Your task to perform on an android device: Open notification settings Image 0: 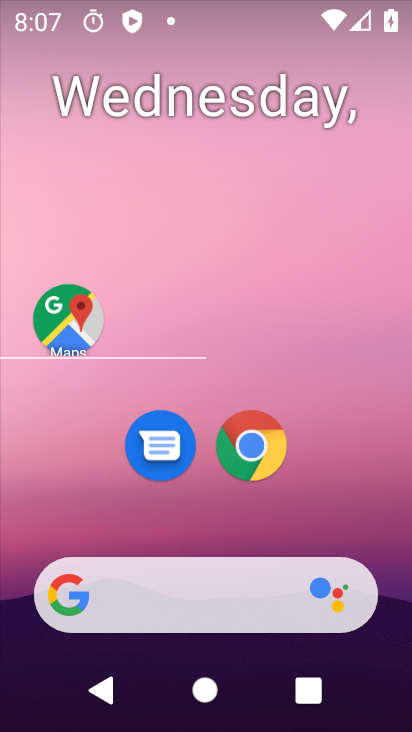
Step 0: drag from (230, 178) to (258, 208)
Your task to perform on an android device: Open notification settings Image 1: 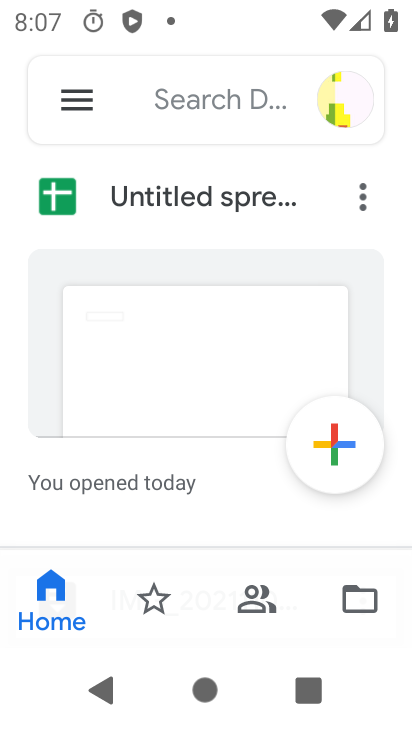
Step 1: press home button
Your task to perform on an android device: Open notification settings Image 2: 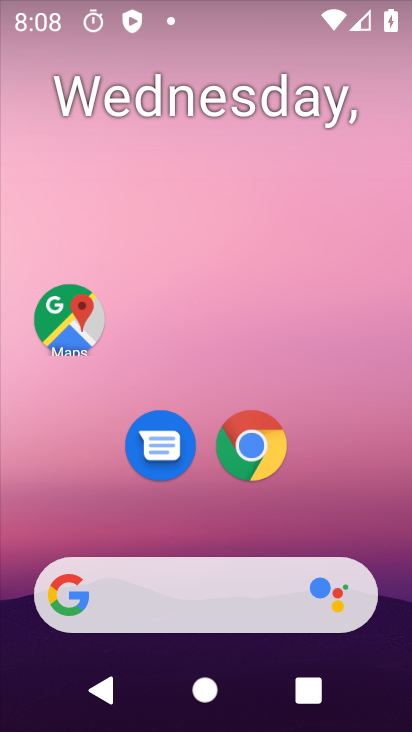
Step 2: drag from (324, 524) to (316, 197)
Your task to perform on an android device: Open notification settings Image 3: 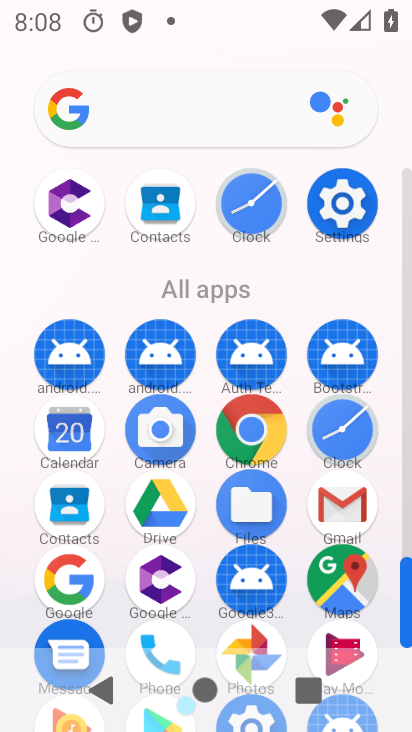
Step 3: click (351, 226)
Your task to perform on an android device: Open notification settings Image 4: 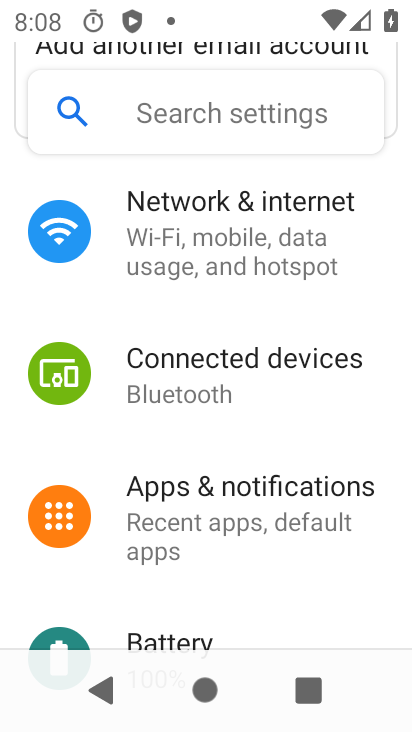
Step 4: click (223, 514)
Your task to perform on an android device: Open notification settings Image 5: 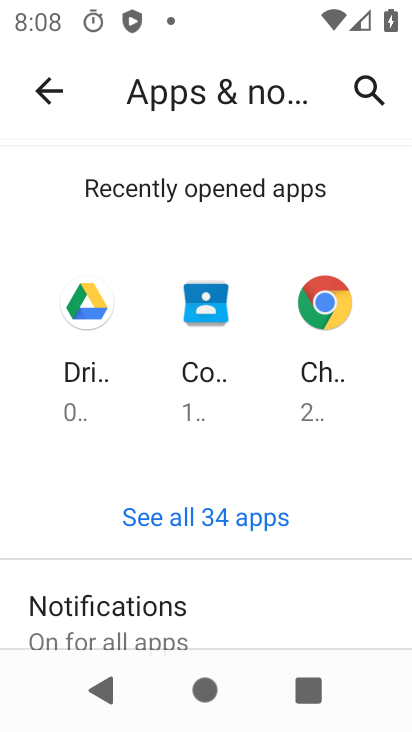
Step 5: task complete